Your task to perform on an android device: Go to Yahoo.com Image 0: 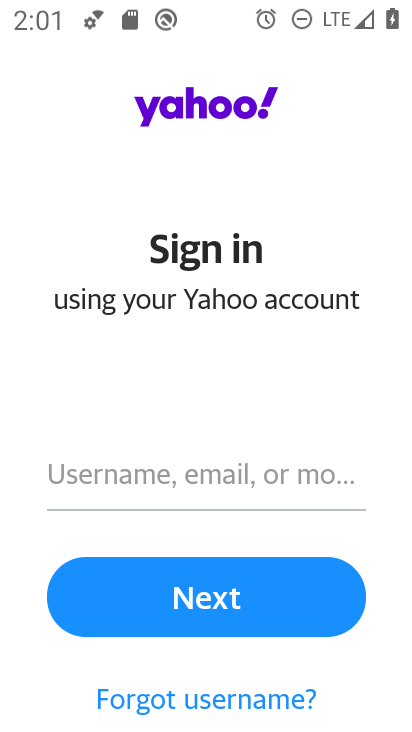
Step 0: press home button
Your task to perform on an android device: Go to Yahoo.com Image 1: 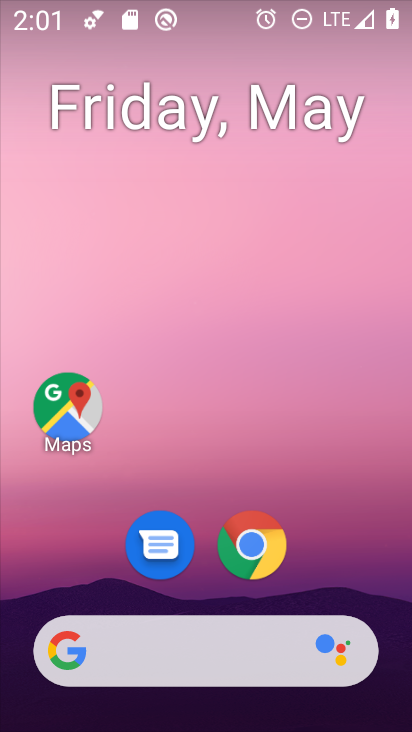
Step 1: drag from (311, 591) to (311, 212)
Your task to perform on an android device: Go to Yahoo.com Image 2: 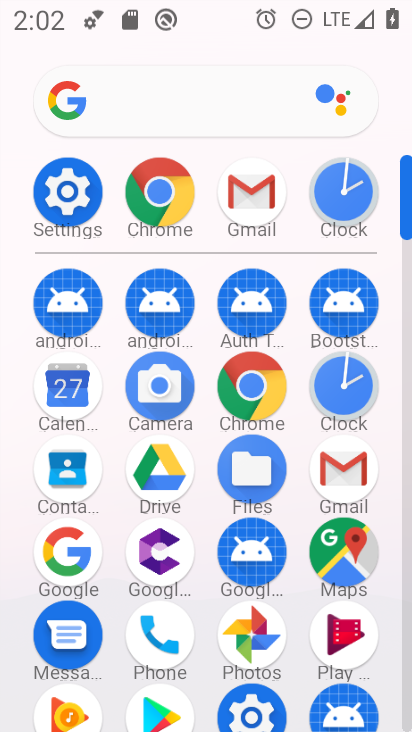
Step 2: click (234, 399)
Your task to perform on an android device: Go to Yahoo.com Image 3: 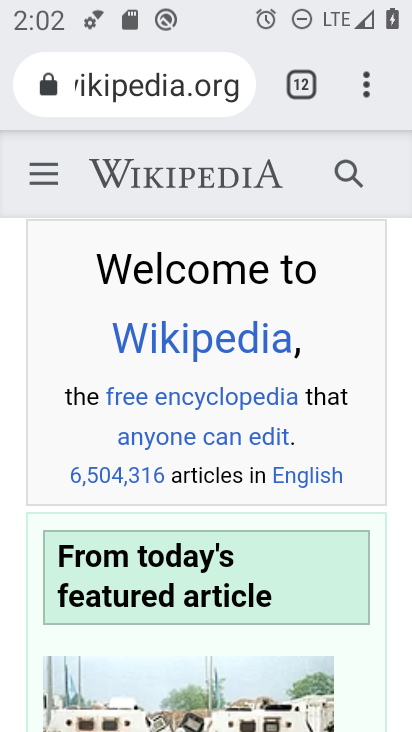
Step 3: click (358, 80)
Your task to perform on an android device: Go to Yahoo.com Image 4: 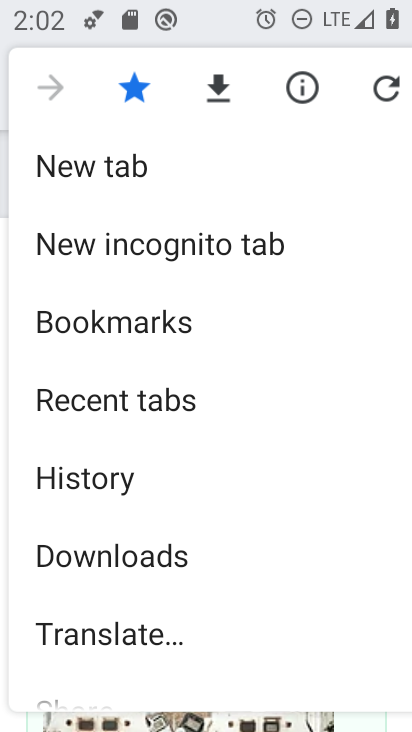
Step 4: click (110, 160)
Your task to perform on an android device: Go to Yahoo.com Image 5: 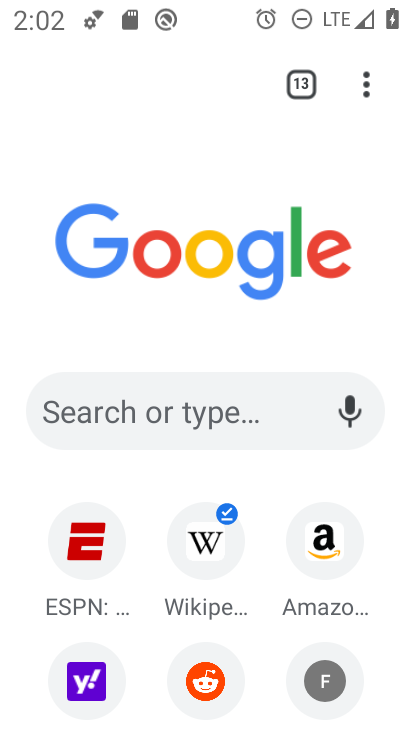
Step 5: click (168, 416)
Your task to perform on an android device: Go to Yahoo.com Image 6: 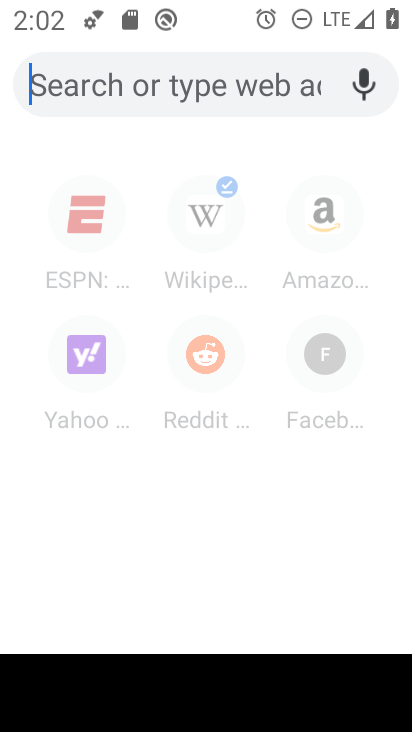
Step 6: type "Go to Yahoo.com"
Your task to perform on an android device: Go to Yahoo.com Image 7: 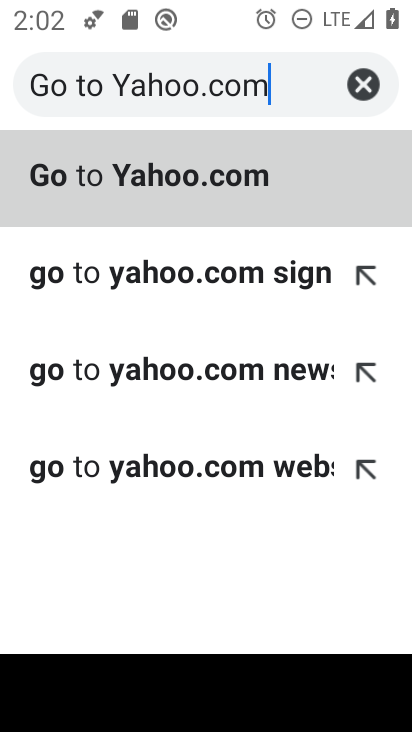
Step 7: click (165, 183)
Your task to perform on an android device: Go to Yahoo.com Image 8: 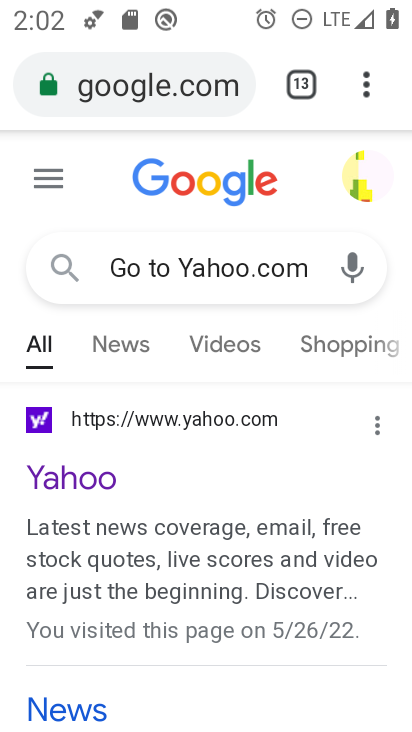
Step 8: click (84, 477)
Your task to perform on an android device: Go to Yahoo.com Image 9: 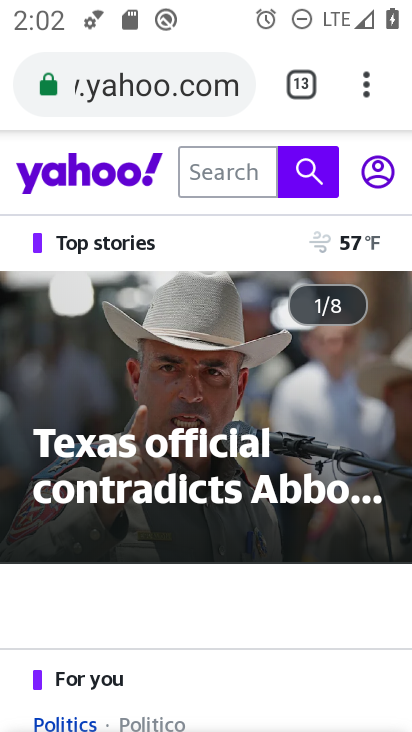
Step 9: task complete